Your task to perform on an android device: What's the weather going to be this weekend? Image 0: 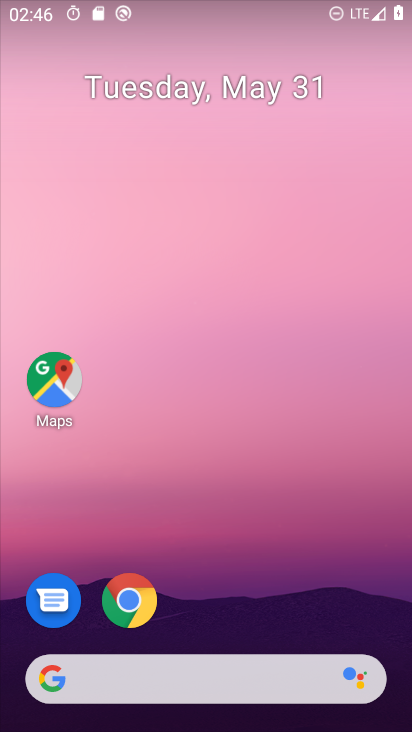
Step 0: drag from (226, 701) to (197, 162)
Your task to perform on an android device: What's the weather going to be this weekend? Image 1: 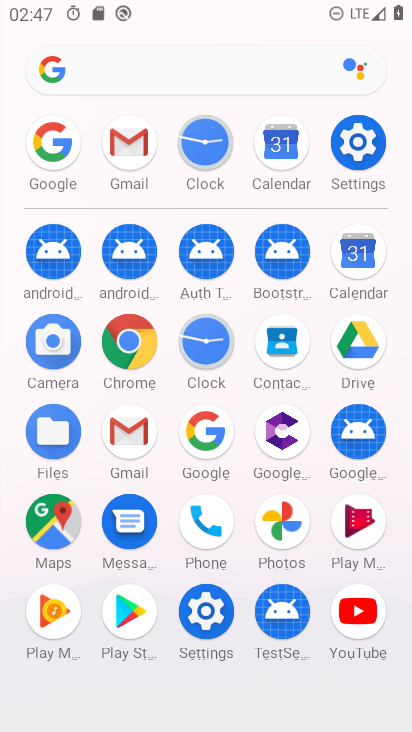
Step 1: click (199, 433)
Your task to perform on an android device: What's the weather going to be this weekend? Image 2: 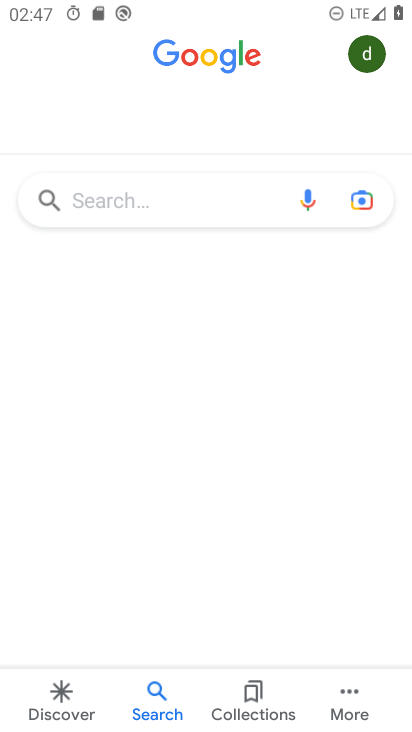
Step 2: click (144, 199)
Your task to perform on an android device: What's the weather going to be this weekend? Image 3: 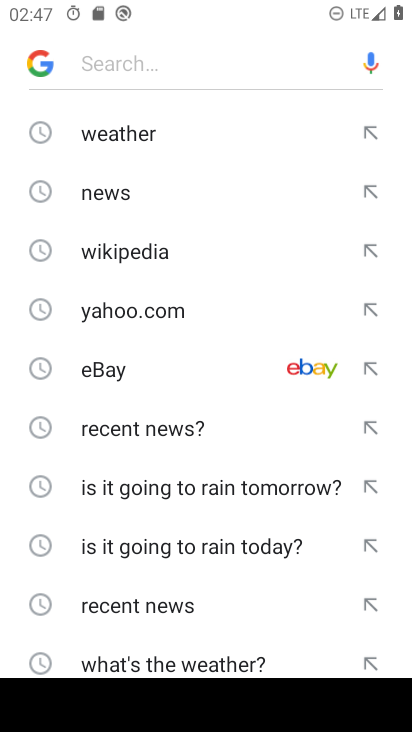
Step 3: click (140, 133)
Your task to perform on an android device: What's the weather going to be this weekend? Image 4: 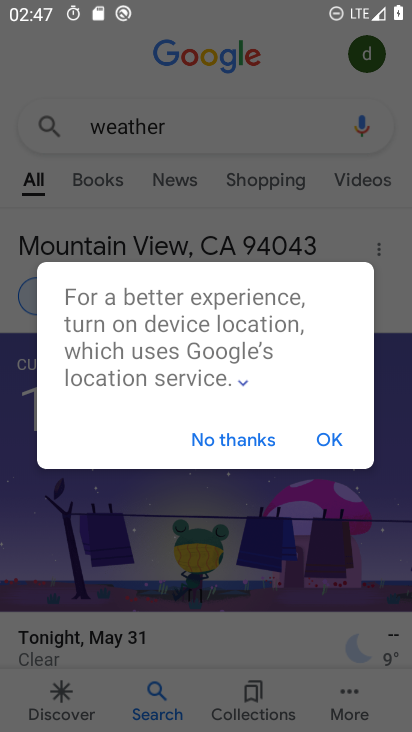
Step 4: click (245, 439)
Your task to perform on an android device: What's the weather going to be this weekend? Image 5: 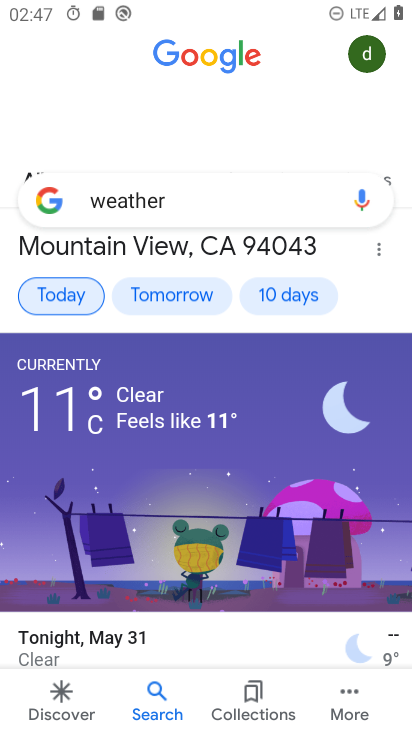
Step 5: click (291, 291)
Your task to perform on an android device: What's the weather going to be this weekend? Image 6: 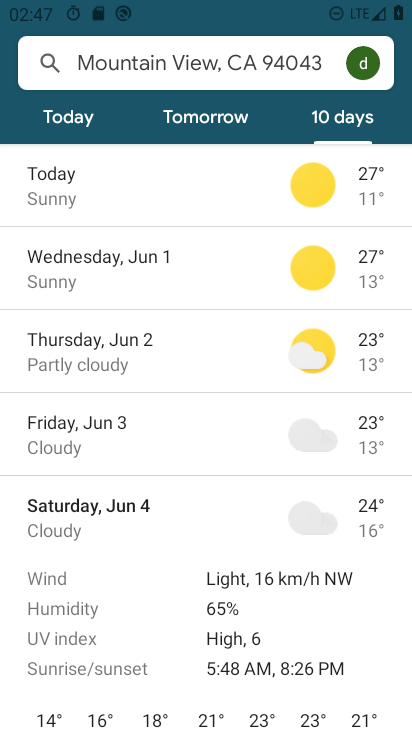
Step 6: task complete